Your task to perform on an android device: Go to display settings Image 0: 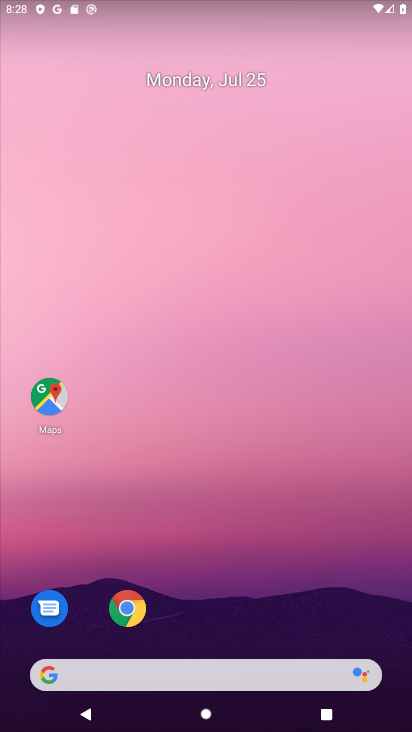
Step 0: drag from (274, 615) to (263, 99)
Your task to perform on an android device: Go to display settings Image 1: 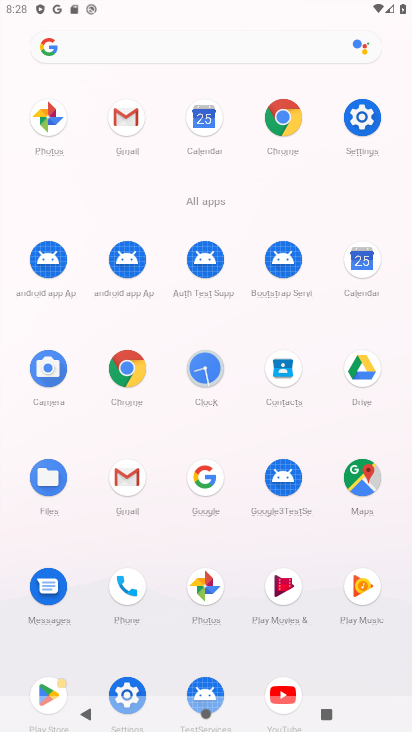
Step 1: click (372, 110)
Your task to perform on an android device: Go to display settings Image 2: 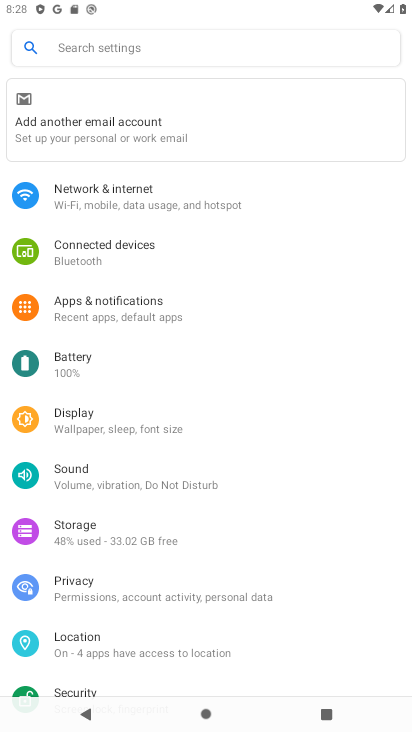
Step 2: click (106, 422)
Your task to perform on an android device: Go to display settings Image 3: 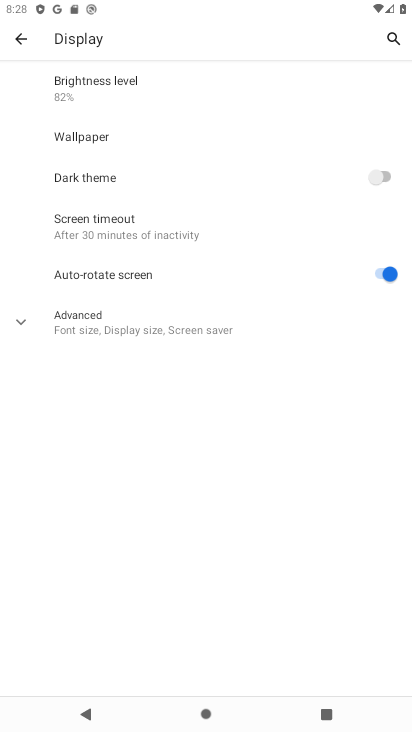
Step 3: task complete